Your task to perform on an android device: set default search engine in the chrome app Image 0: 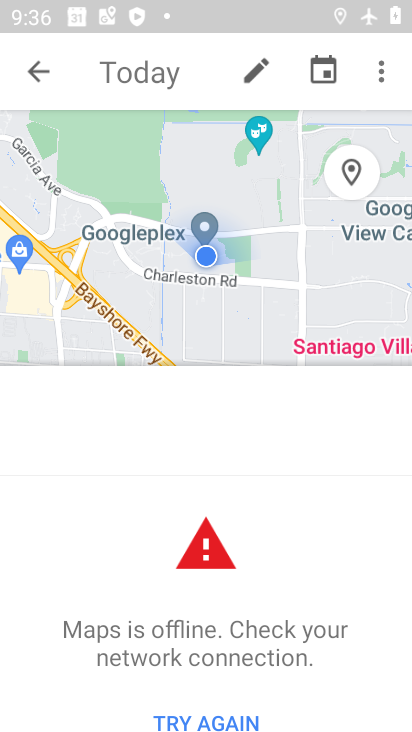
Step 0: press home button
Your task to perform on an android device: set default search engine in the chrome app Image 1: 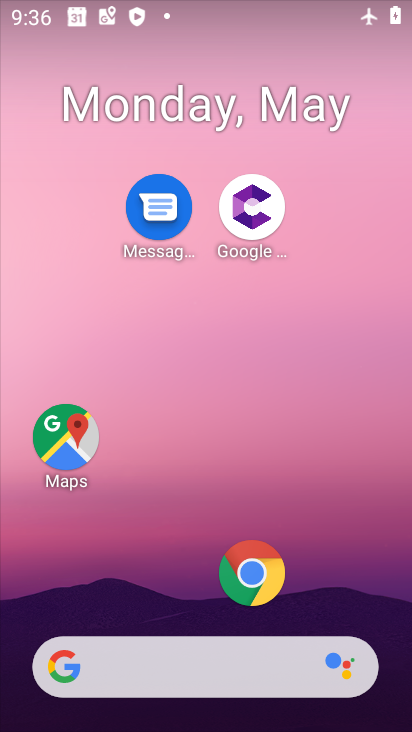
Step 1: click (256, 575)
Your task to perform on an android device: set default search engine in the chrome app Image 2: 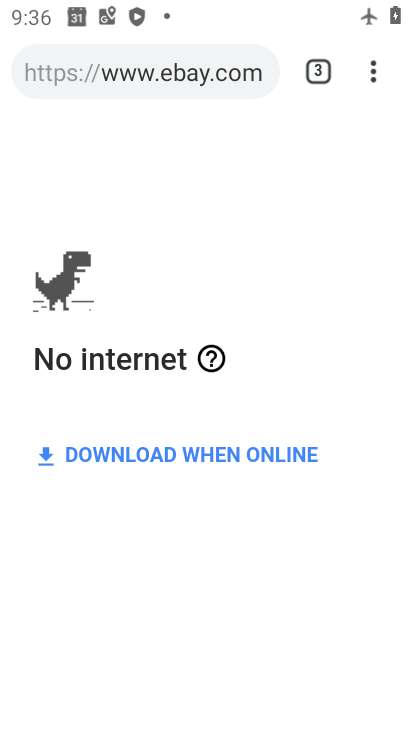
Step 2: click (368, 77)
Your task to perform on an android device: set default search engine in the chrome app Image 3: 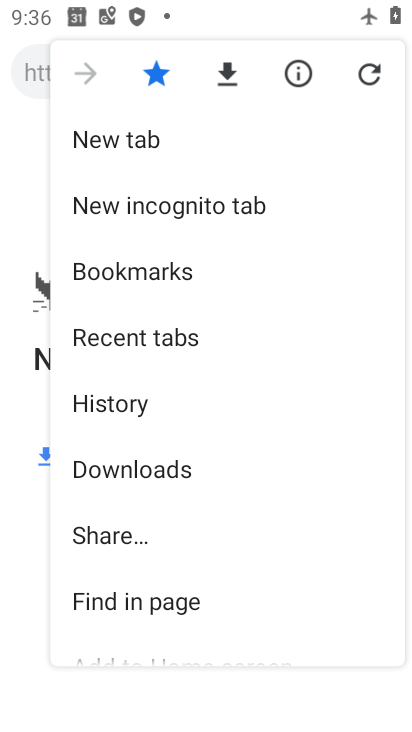
Step 3: drag from (157, 536) to (199, 217)
Your task to perform on an android device: set default search engine in the chrome app Image 4: 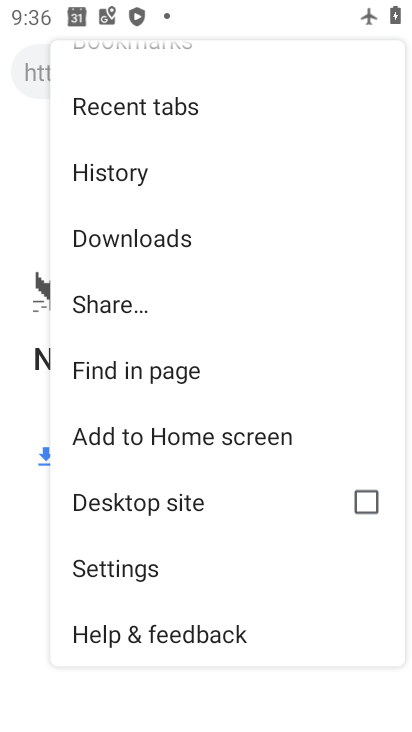
Step 4: click (133, 570)
Your task to perform on an android device: set default search engine in the chrome app Image 5: 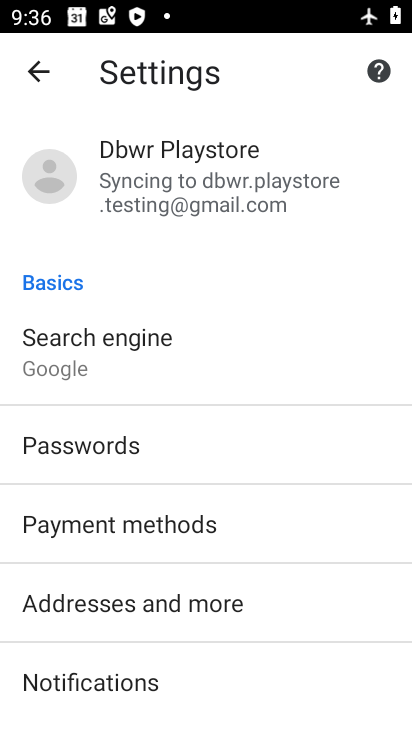
Step 5: drag from (143, 572) to (154, 318)
Your task to perform on an android device: set default search engine in the chrome app Image 6: 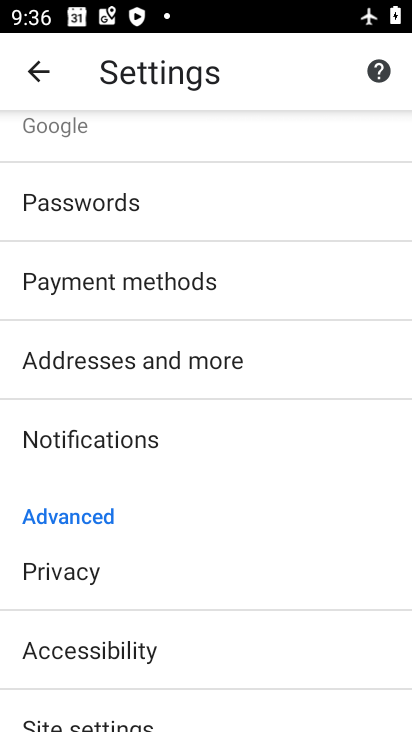
Step 6: drag from (172, 261) to (118, 618)
Your task to perform on an android device: set default search engine in the chrome app Image 7: 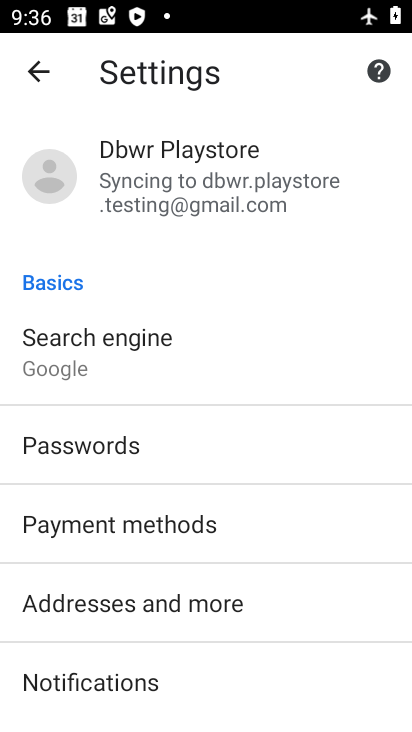
Step 7: click (105, 350)
Your task to perform on an android device: set default search engine in the chrome app Image 8: 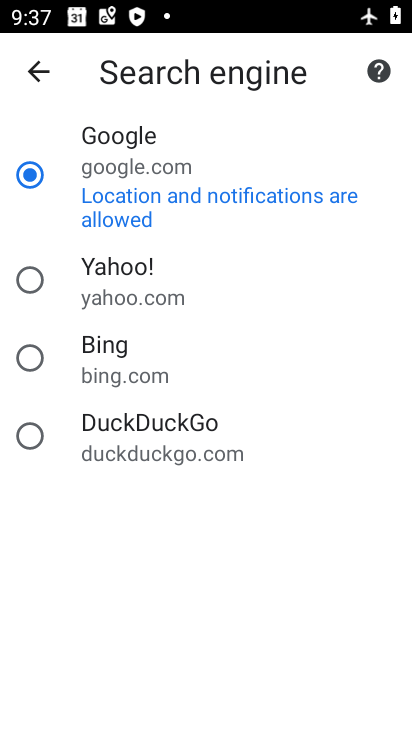
Step 8: task complete